Your task to perform on an android device: Go to network settings Image 0: 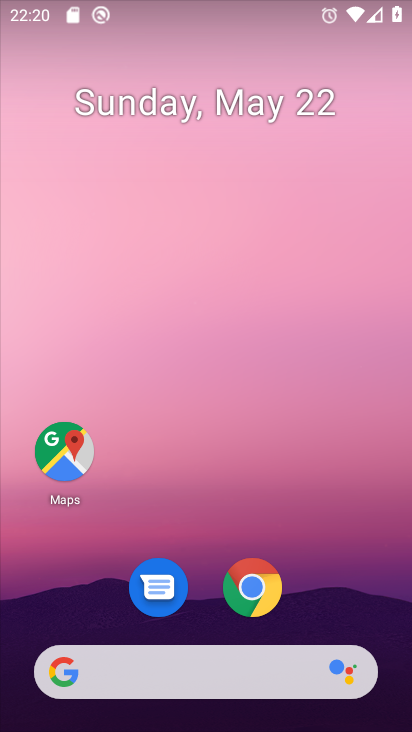
Step 0: drag from (222, 482) to (191, 1)
Your task to perform on an android device: Go to network settings Image 1: 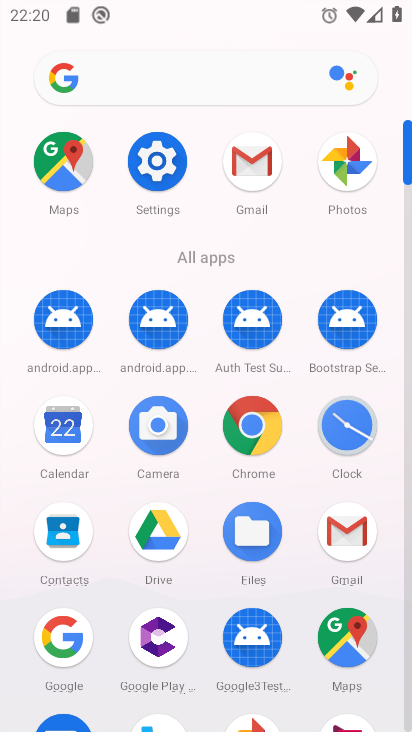
Step 1: click (152, 156)
Your task to perform on an android device: Go to network settings Image 2: 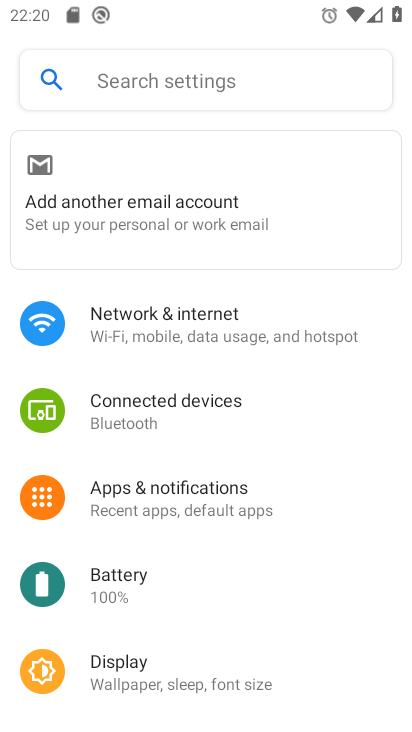
Step 2: click (186, 309)
Your task to perform on an android device: Go to network settings Image 3: 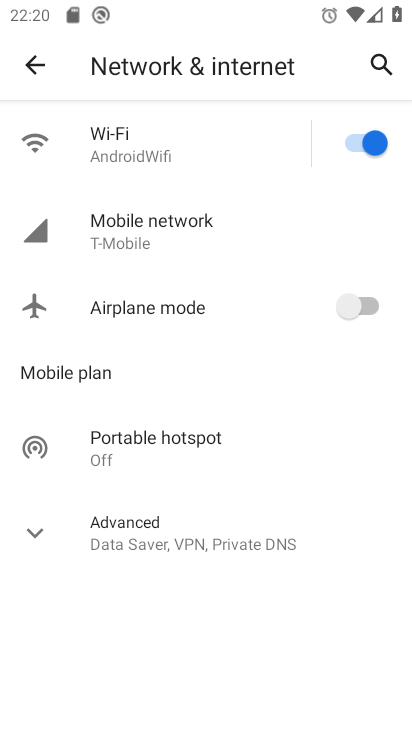
Step 3: task complete